Your task to perform on an android device: Go to Google Image 0: 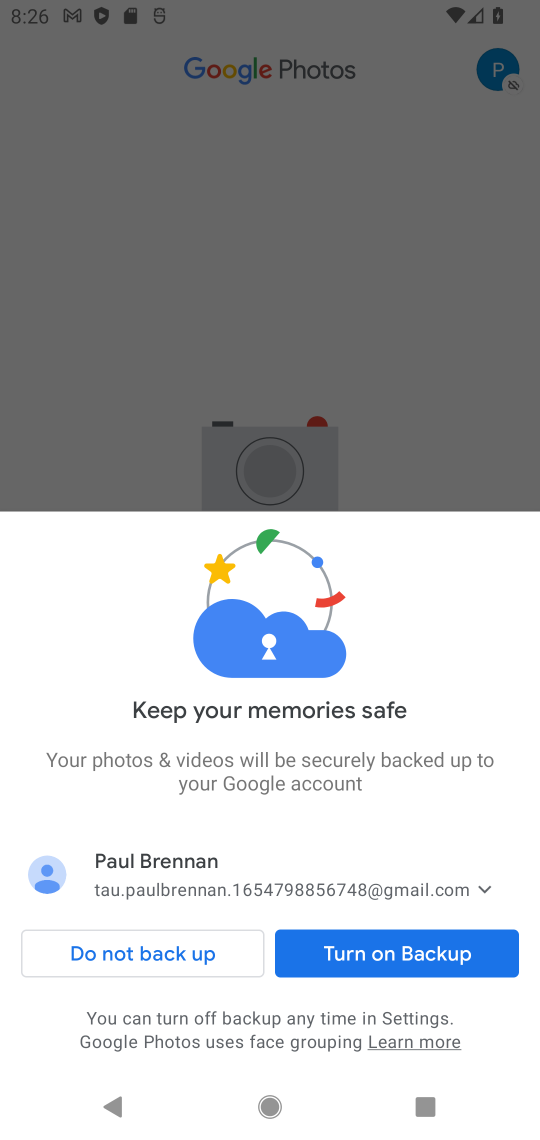
Step 0: press home button
Your task to perform on an android device: Go to Google Image 1: 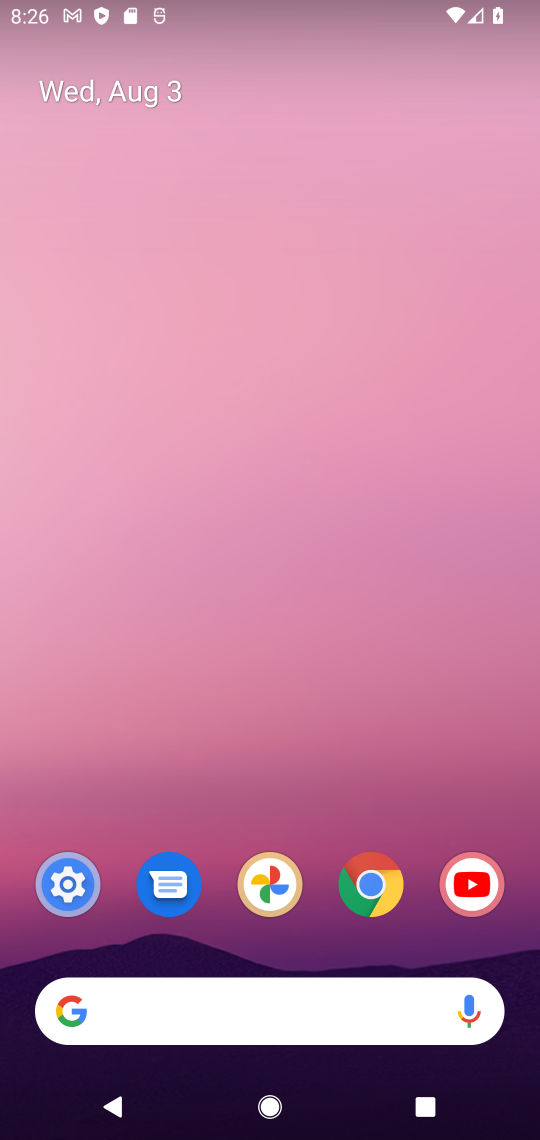
Step 1: click (366, 887)
Your task to perform on an android device: Go to Google Image 2: 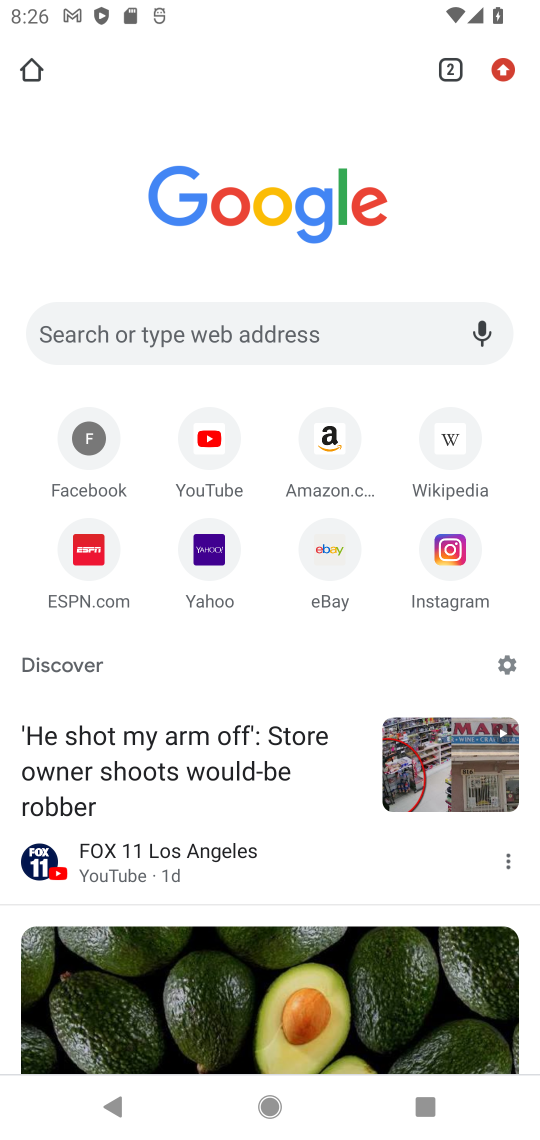
Step 2: task complete